Your task to perform on an android device: turn notification dots off Image 0: 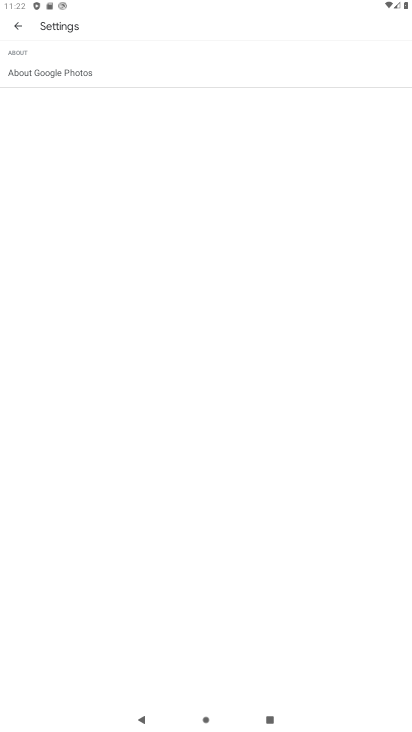
Step 0: press home button
Your task to perform on an android device: turn notification dots off Image 1: 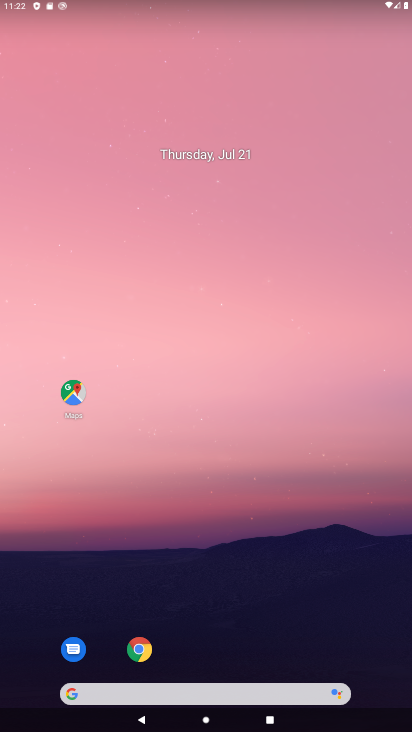
Step 1: drag from (204, 609) to (143, 31)
Your task to perform on an android device: turn notification dots off Image 2: 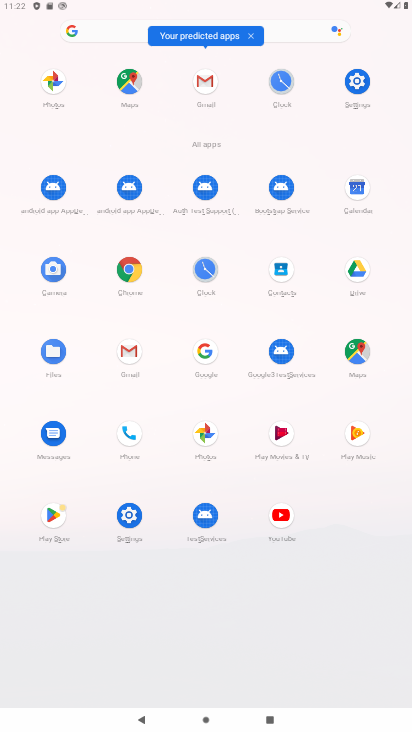
Step 2: click (355, 85)
Your task to perform on an android device: turn notification dots off Image 3: 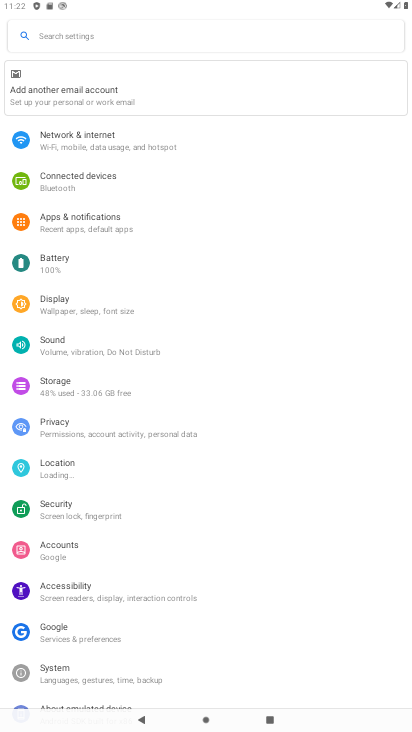
Step 3: click (83, 211)
Your task to perform on an android device: turn notification dots off Image 4: 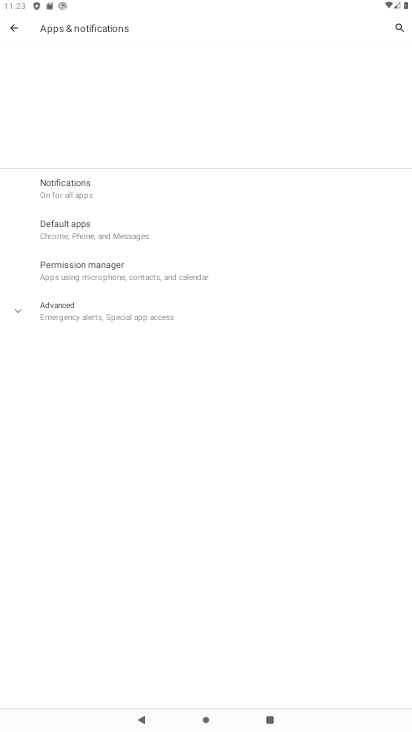
Step 4: click (64, 181)
Your task to perform on an android device: turn notification dots off Image 5: 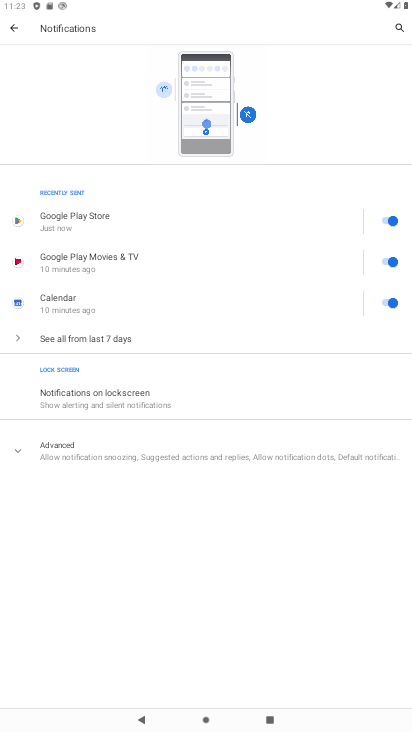
Step 5: click (21, 448)
Your task to perform on an android device: turn notification dots off Image 6: 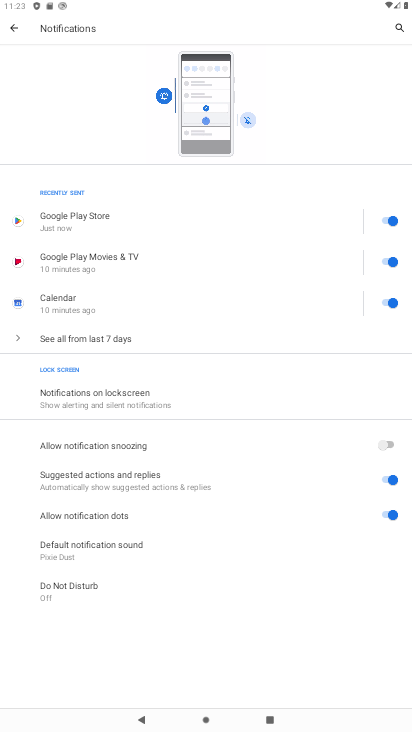
Step 6: click (394, 513)
Your task to perform on an android device: turn notification dots off Image 7: 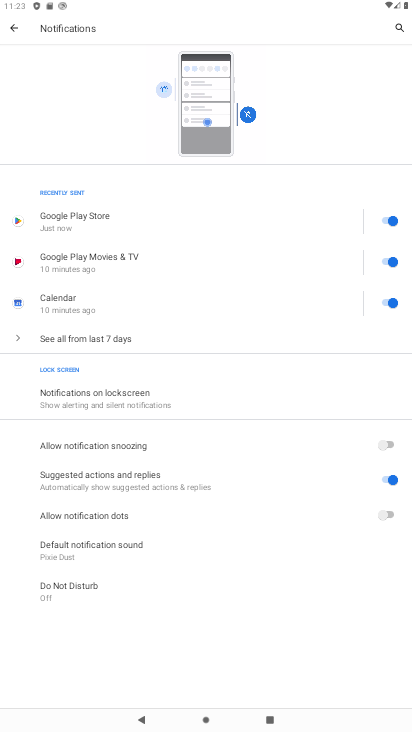
Step 7: task complete